Your task to perform on an android device: Is it going to rain this weekend? Image 0: 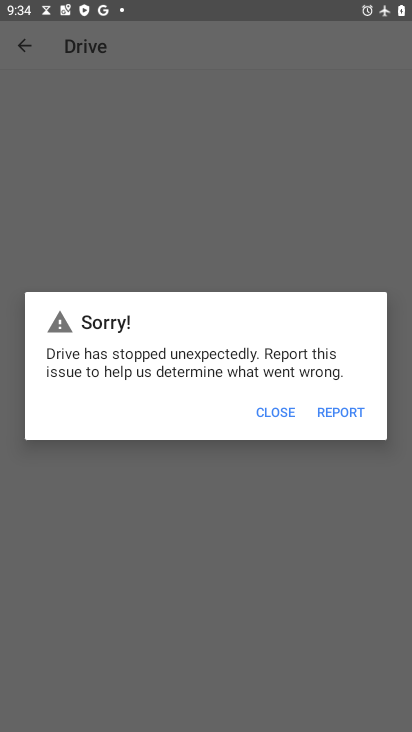
Step 0: press home button
Your task to perform on an android device: Is it going to rain this weekend? Image 1: 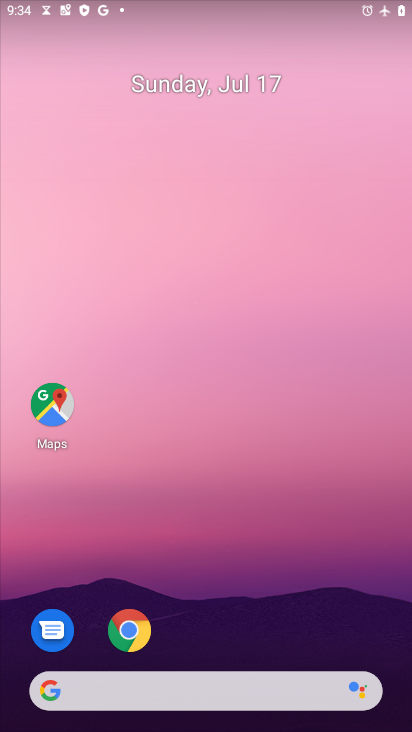
Step 1: drag from (203, 553) to (205, 201)
Your task to perform on an android device: Is it going to rain this weekend? Image 2: 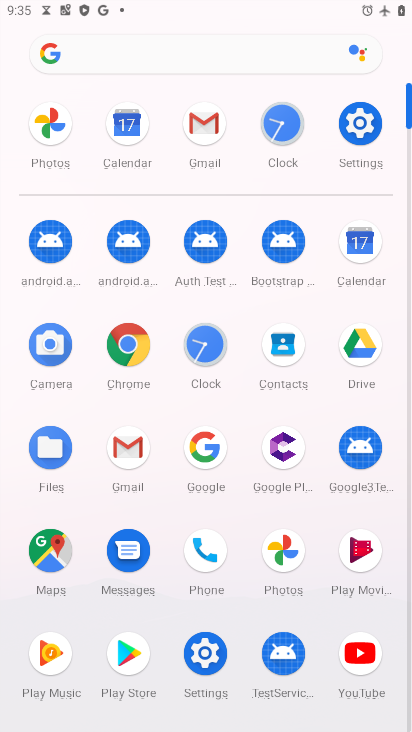
Step 2: click (207, 456)
Your task to perform on an android device: Is it going to rain this weekend? Image 3: 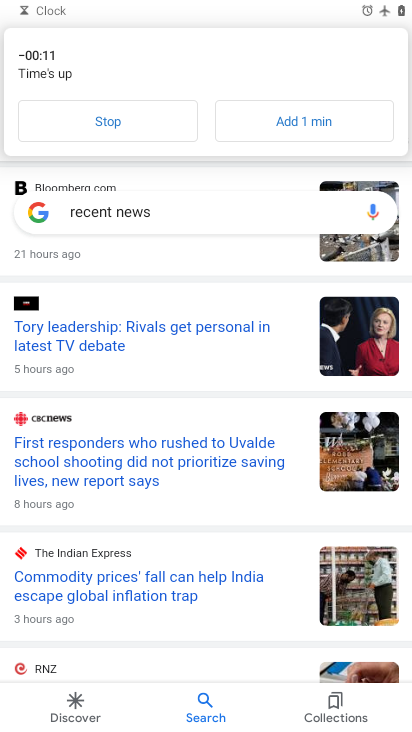
Step 3: click (107, 106)
Your task to perform on an android device: Is it going to rain this weekend? Image 4: 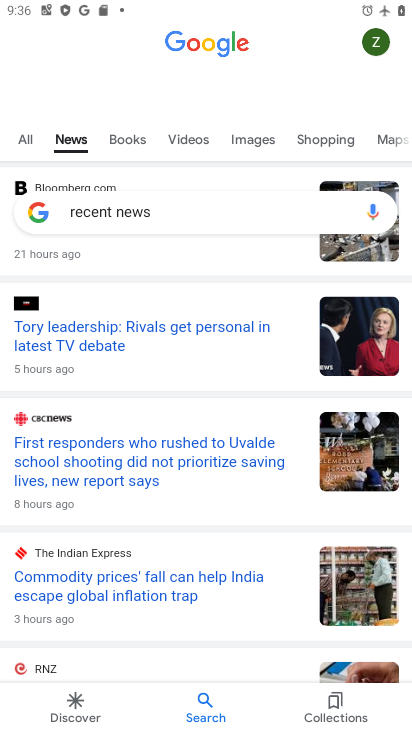
Step 4: click (158, 111)
Your task to perform on an android device: Is it going to rain this weekend? Image 5: 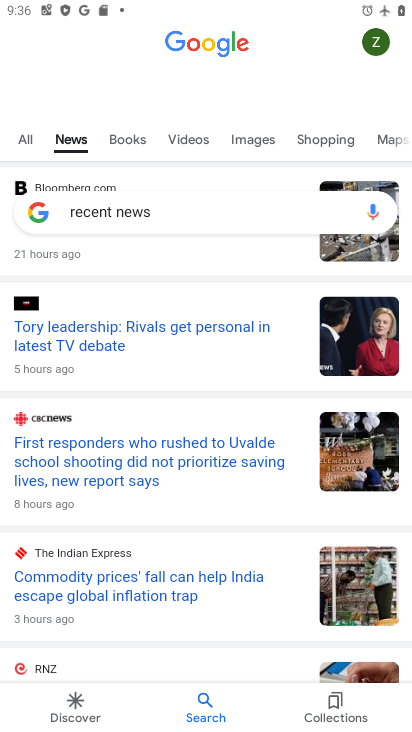
Step 5: click (25, 141)
Your task to perform on an android device: Is it going to rain this weekend? Image 6: 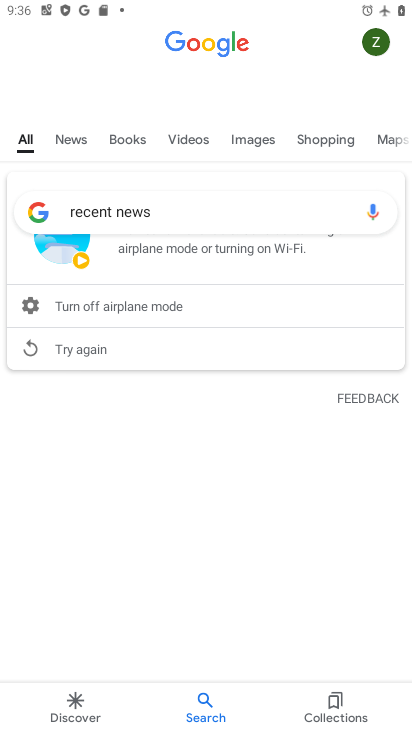
Step 6: click (198, 214)
Your task to perform on an android device: Is it going to rain this weekend? Image 7: 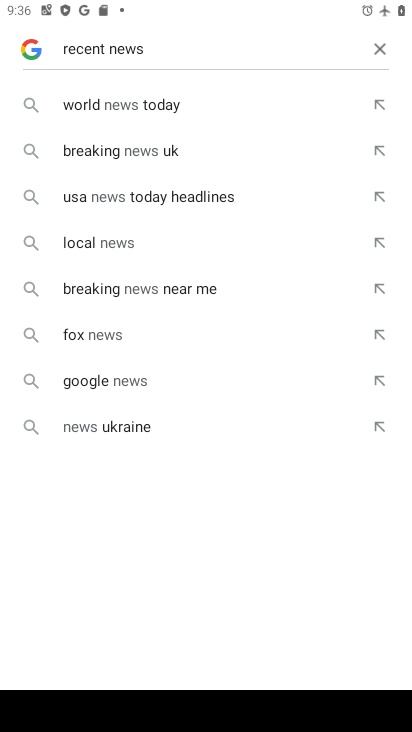
Step 7: click (381, 50)
Your task to perform on an android device: Is it going to rain this weekend? Image 8: 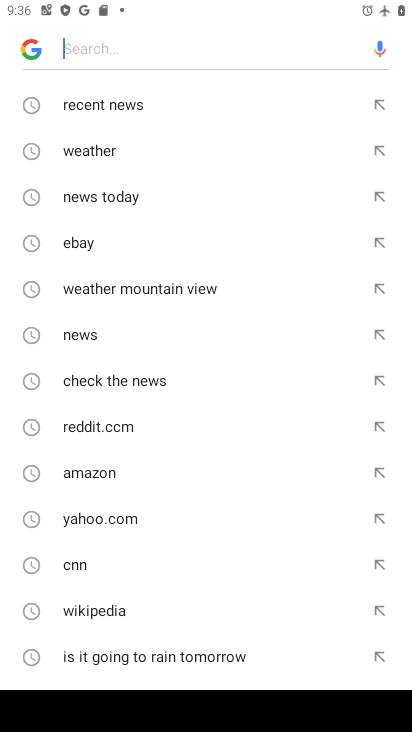
Step 8: click (163, 154)
Your task to perform on an android device: Is it going to rain this weekend? Image 9: 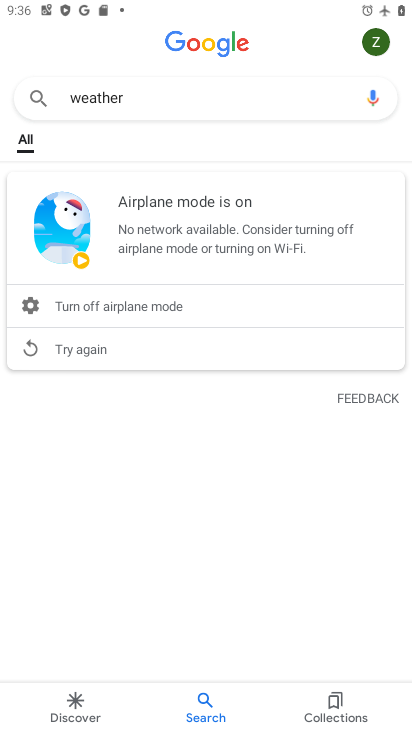
Step 9: task complete